Your task to perform on an android device: check google app version Image 0: 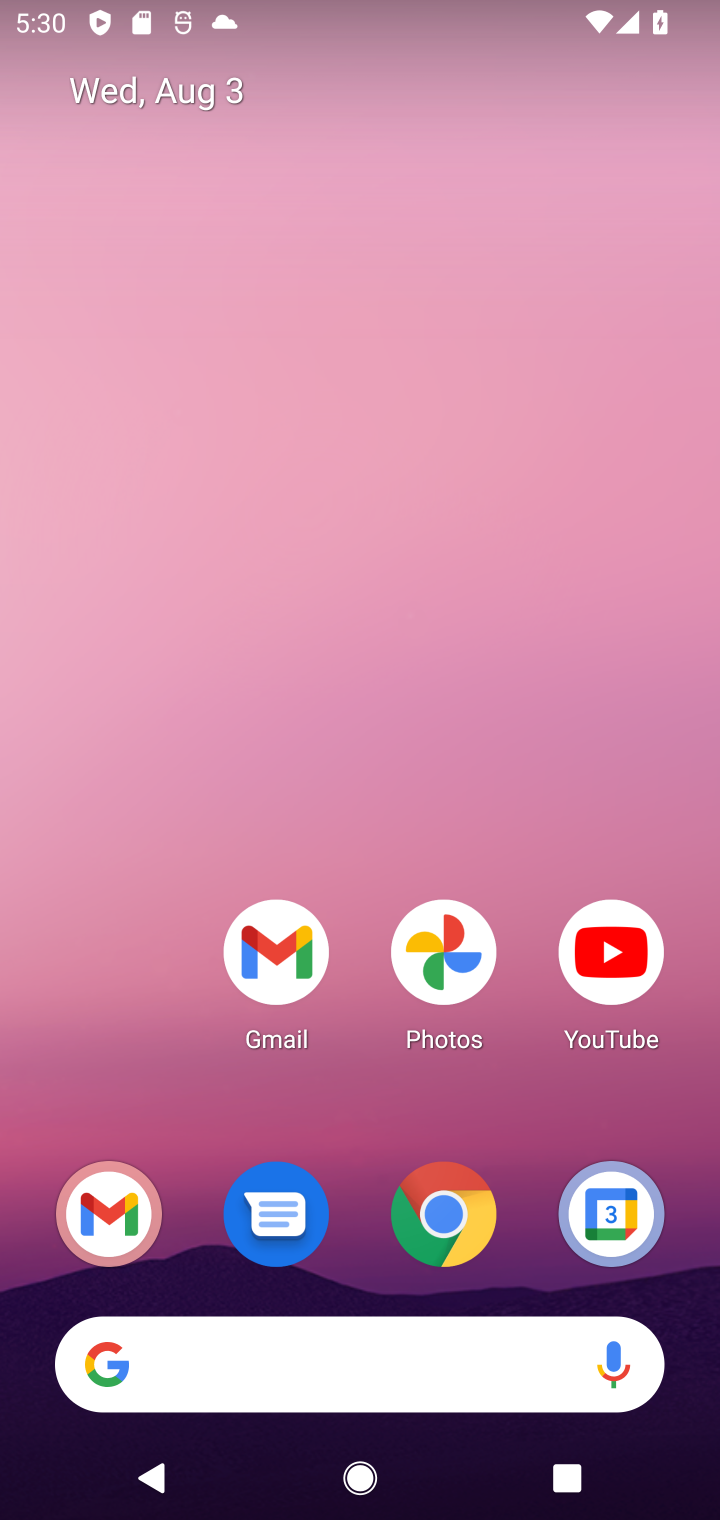
Step 0: drag from (114, 607) to (207, 8)
Your task to perform on an android device: check google app version Image 1: 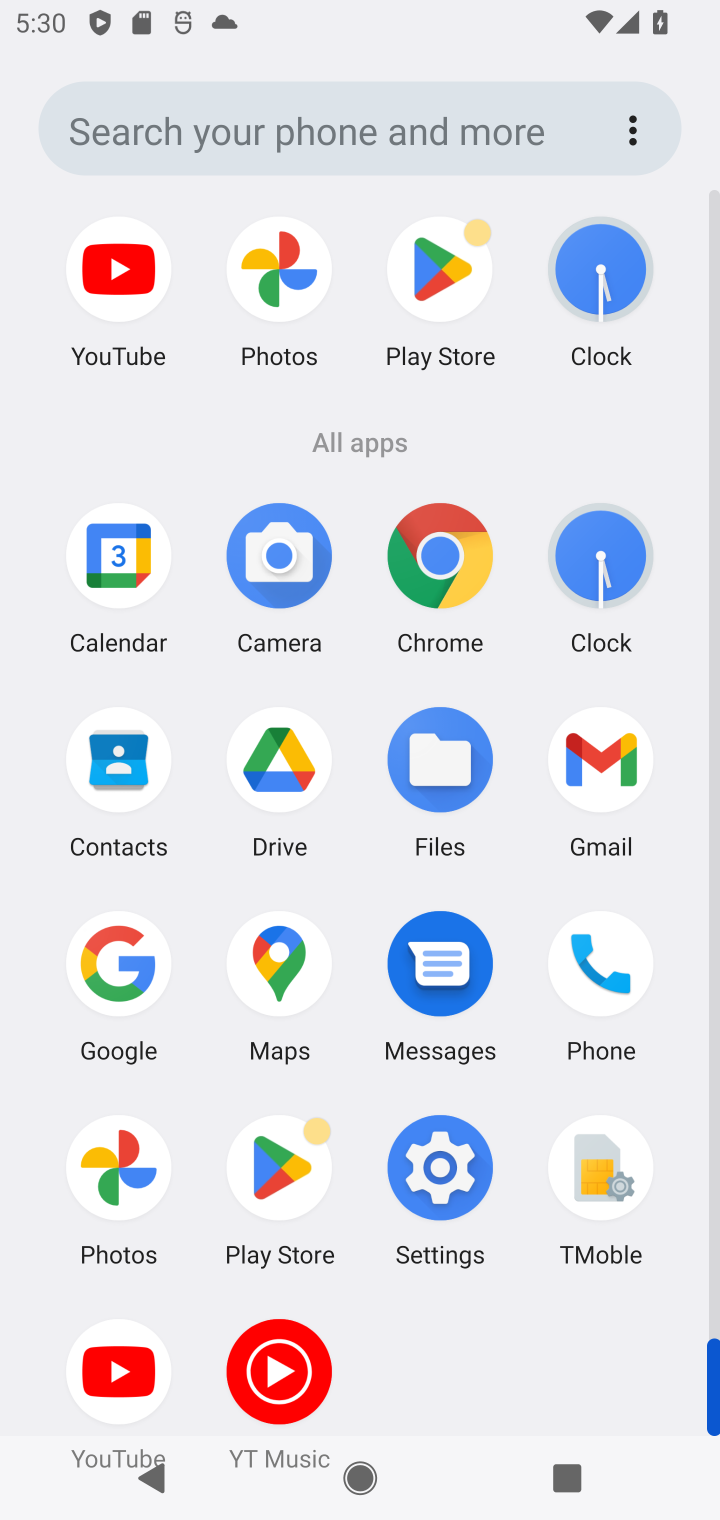
Step 1: click (112, 967)
Your task to perform on an android device: check google app version Image 2: 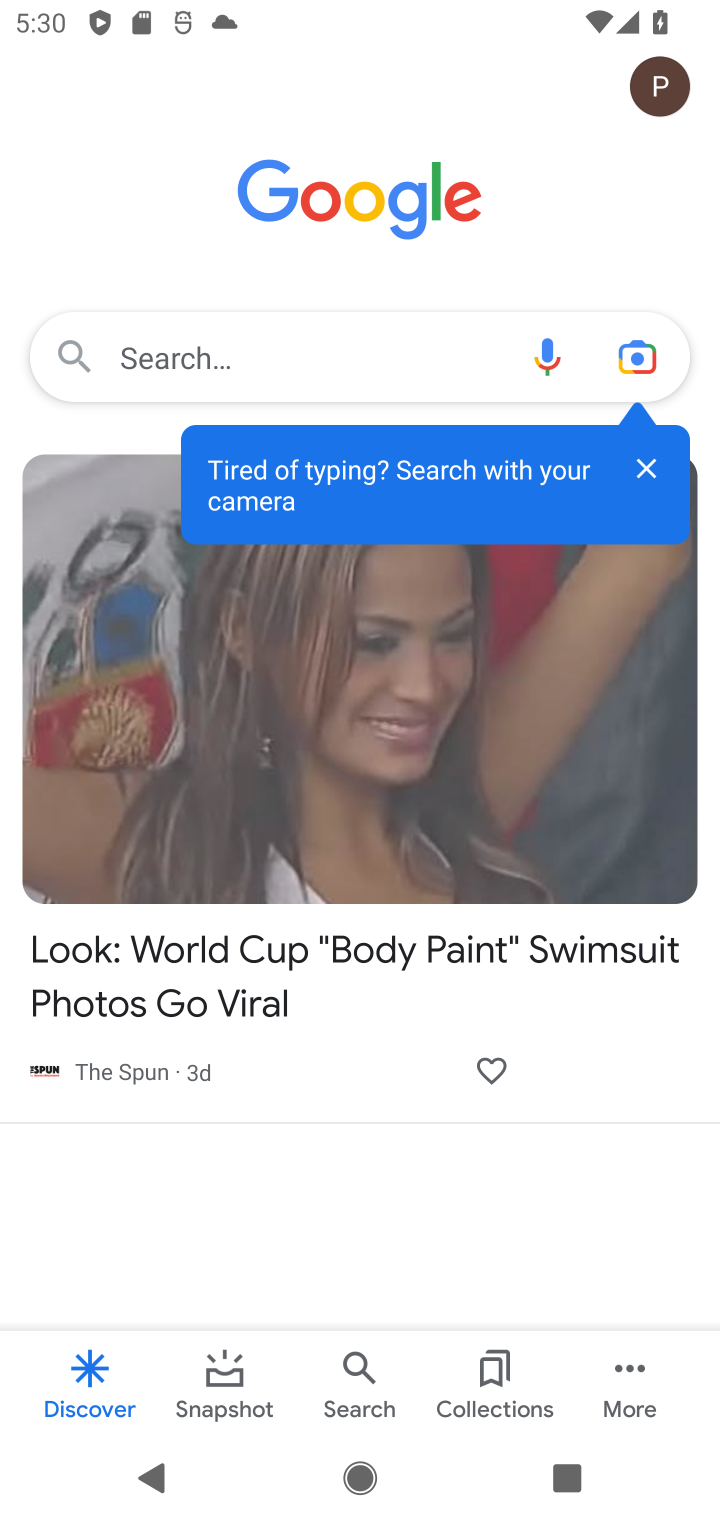
Step 2: click (618, 1372)
Your task to perform on an android device: check google app version Image 3: 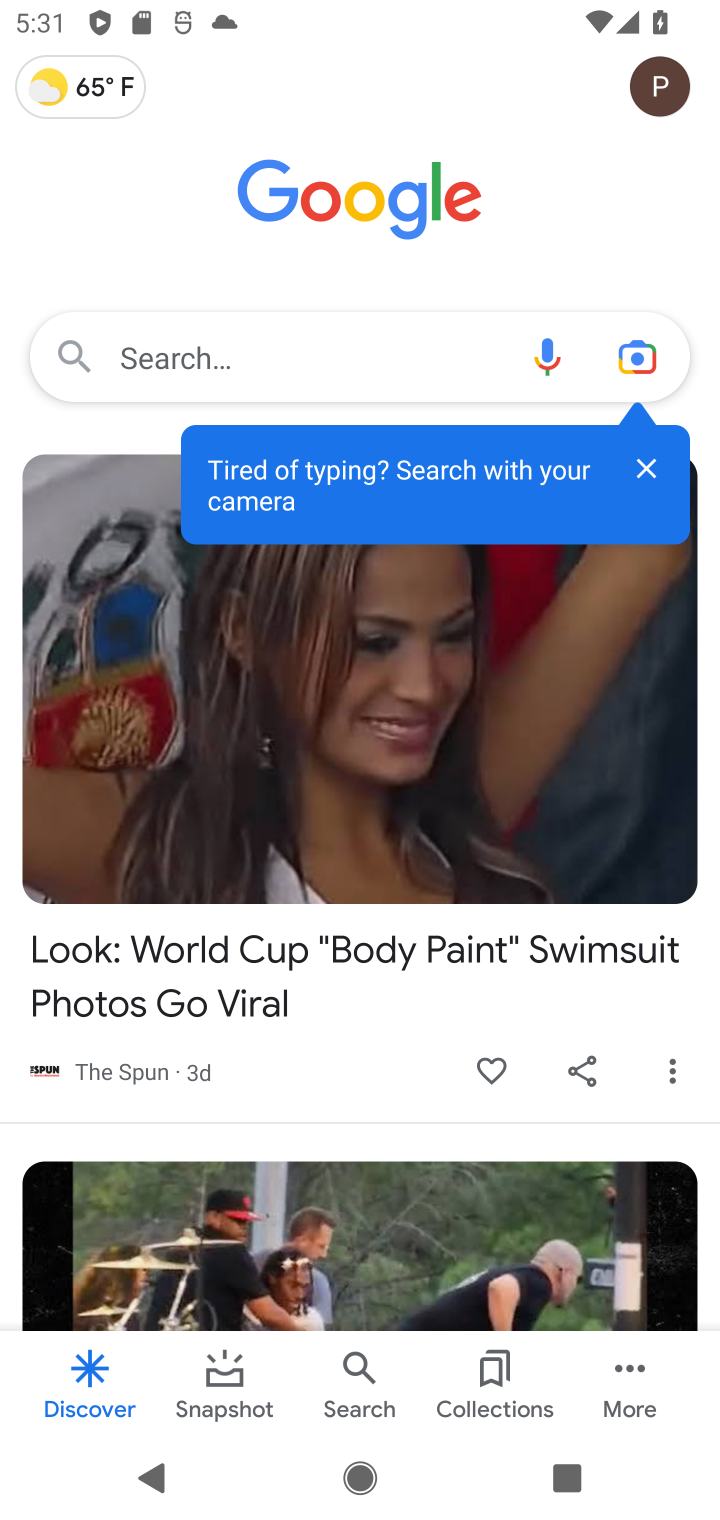
Step 3: click (632, 1385)
Your task to perform on an android device: check google app version Image 4: 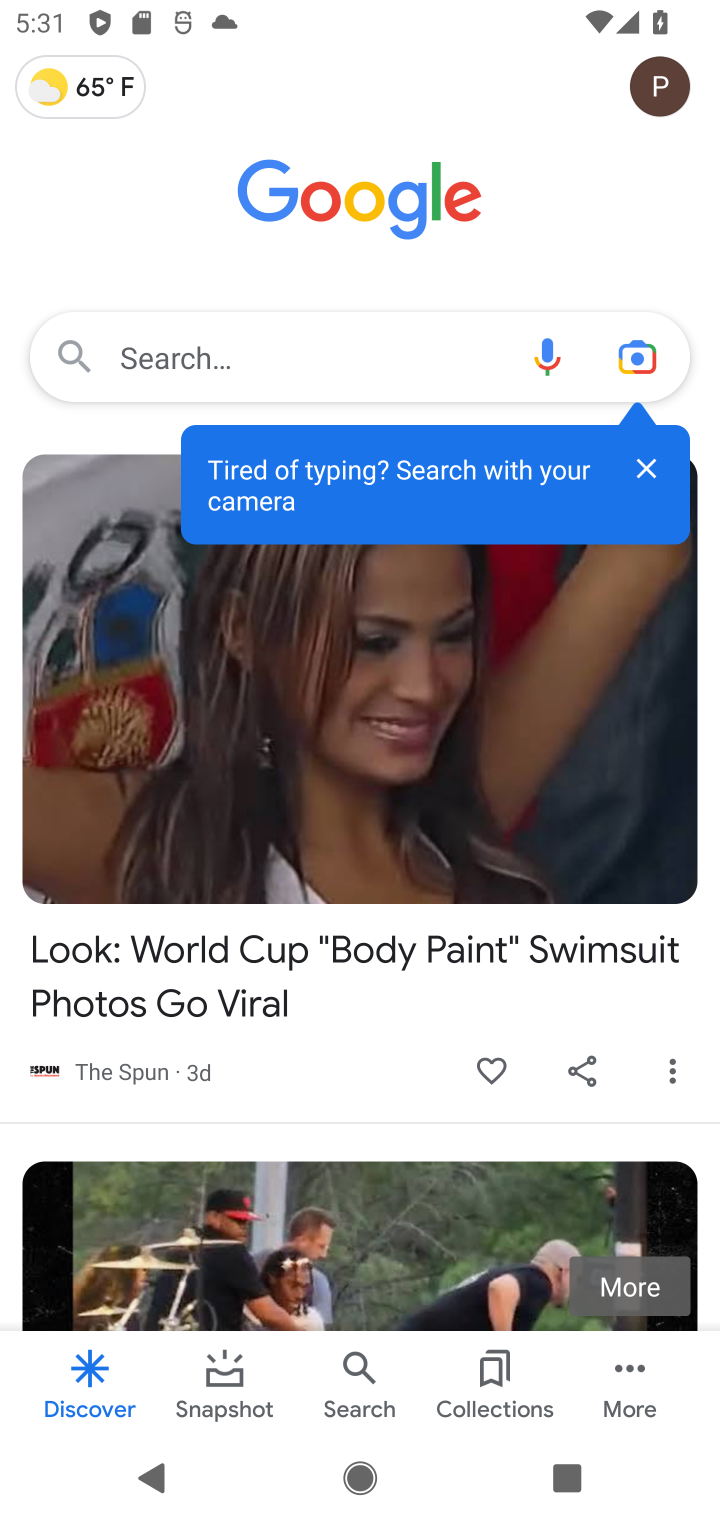
Step 4: click (632, 1381)
Your task to perform on an android device: check google app version Image 5: 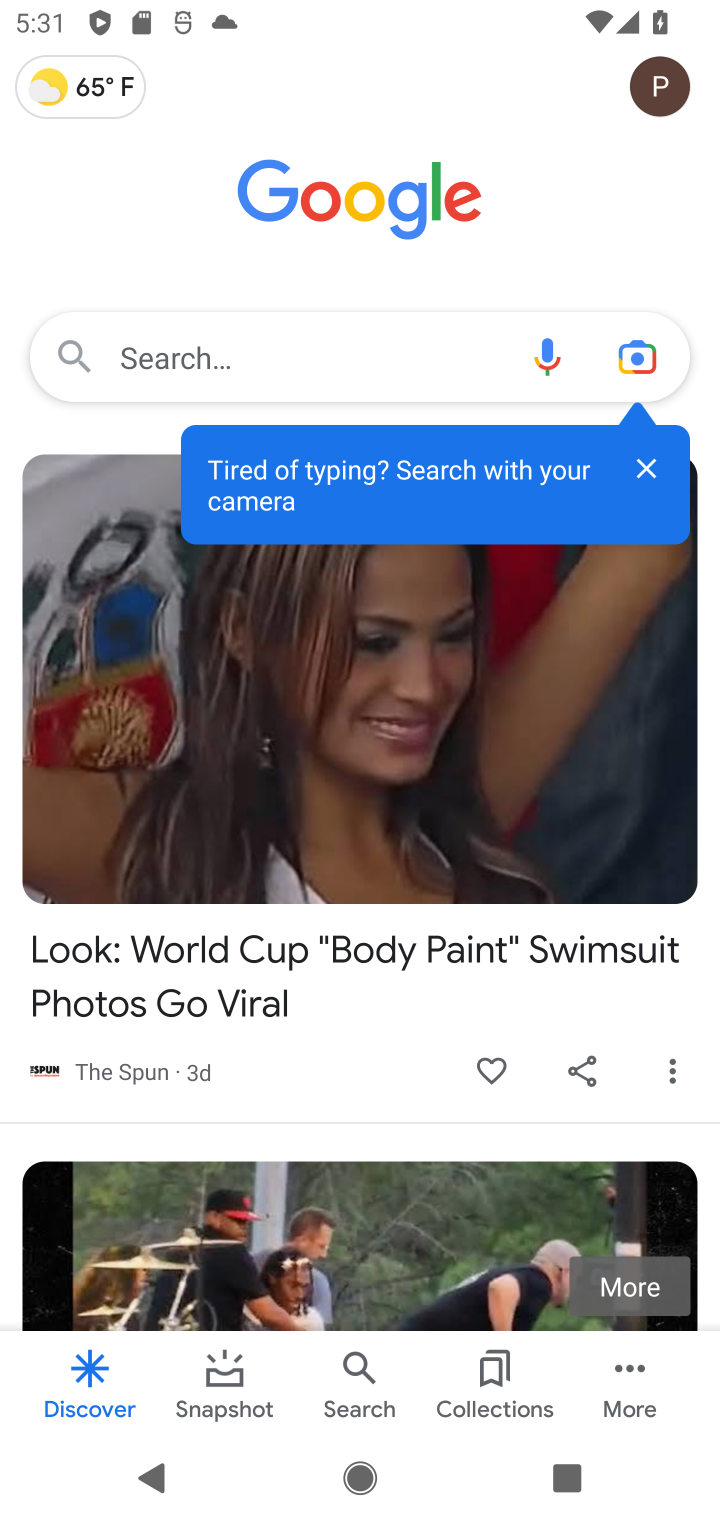
Step 5: click (630, 1395)
Your task to perform on an android device: check google app version Image 6: 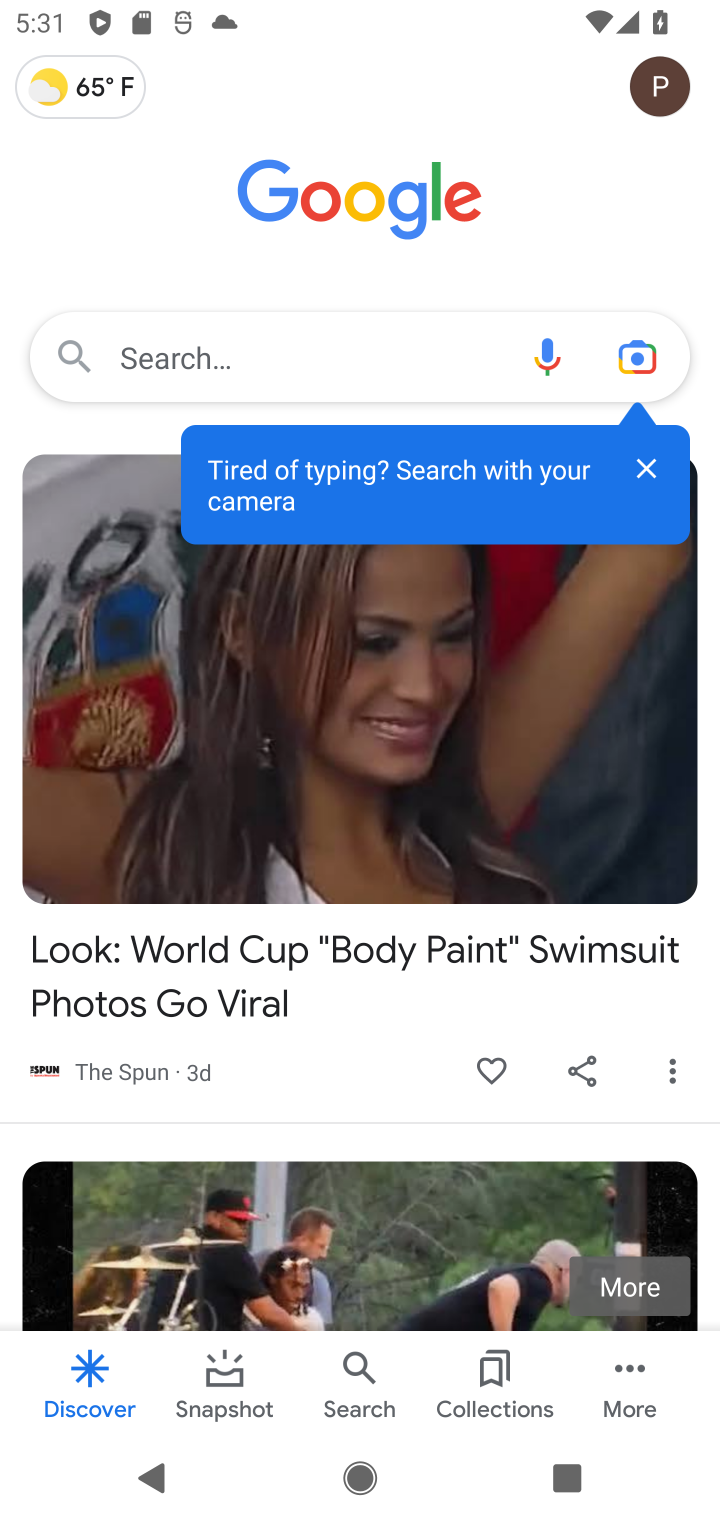
Step 6: click (635, 1391)
Your task to perform on an android device: check google app version Image 7: 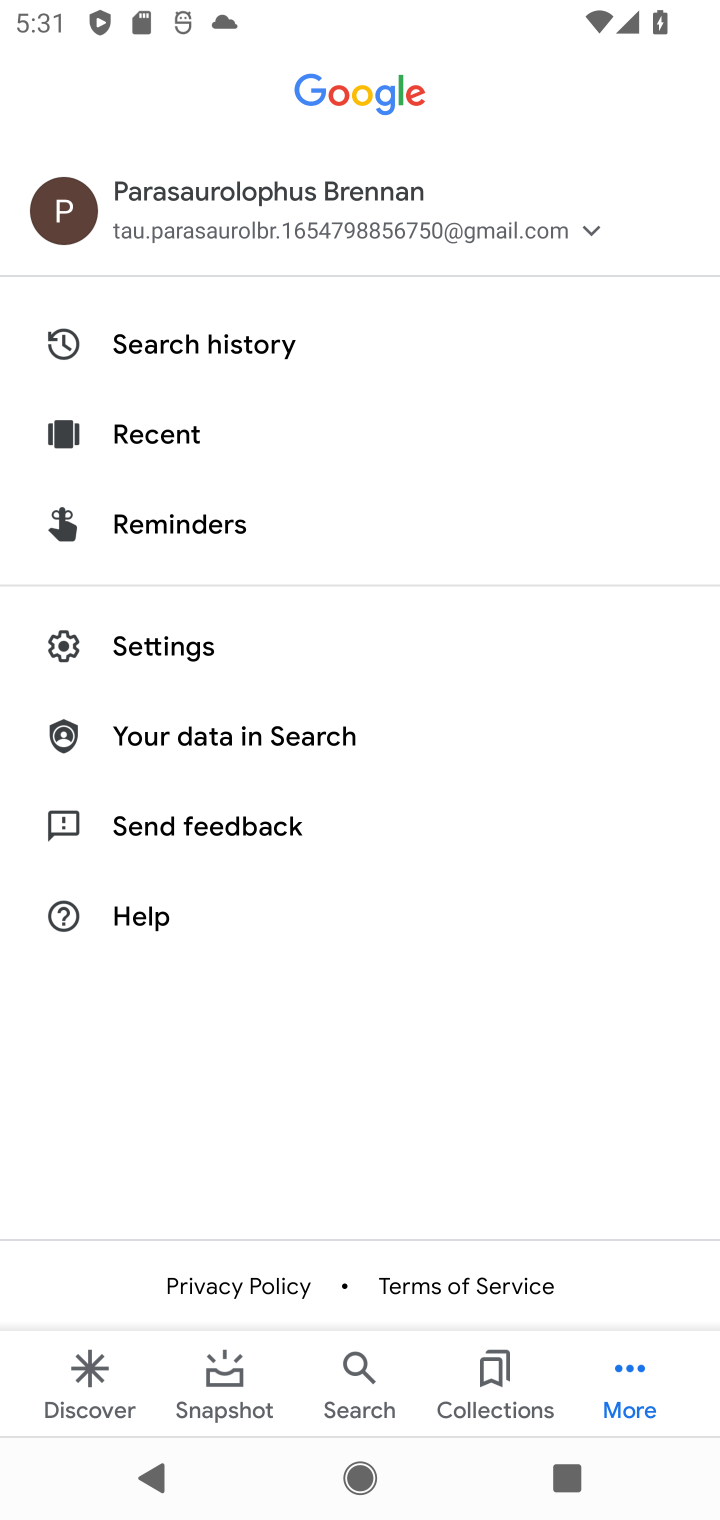
Step 7: click (155, 658)
Your task to perform on an android device: check google app version Image 8: 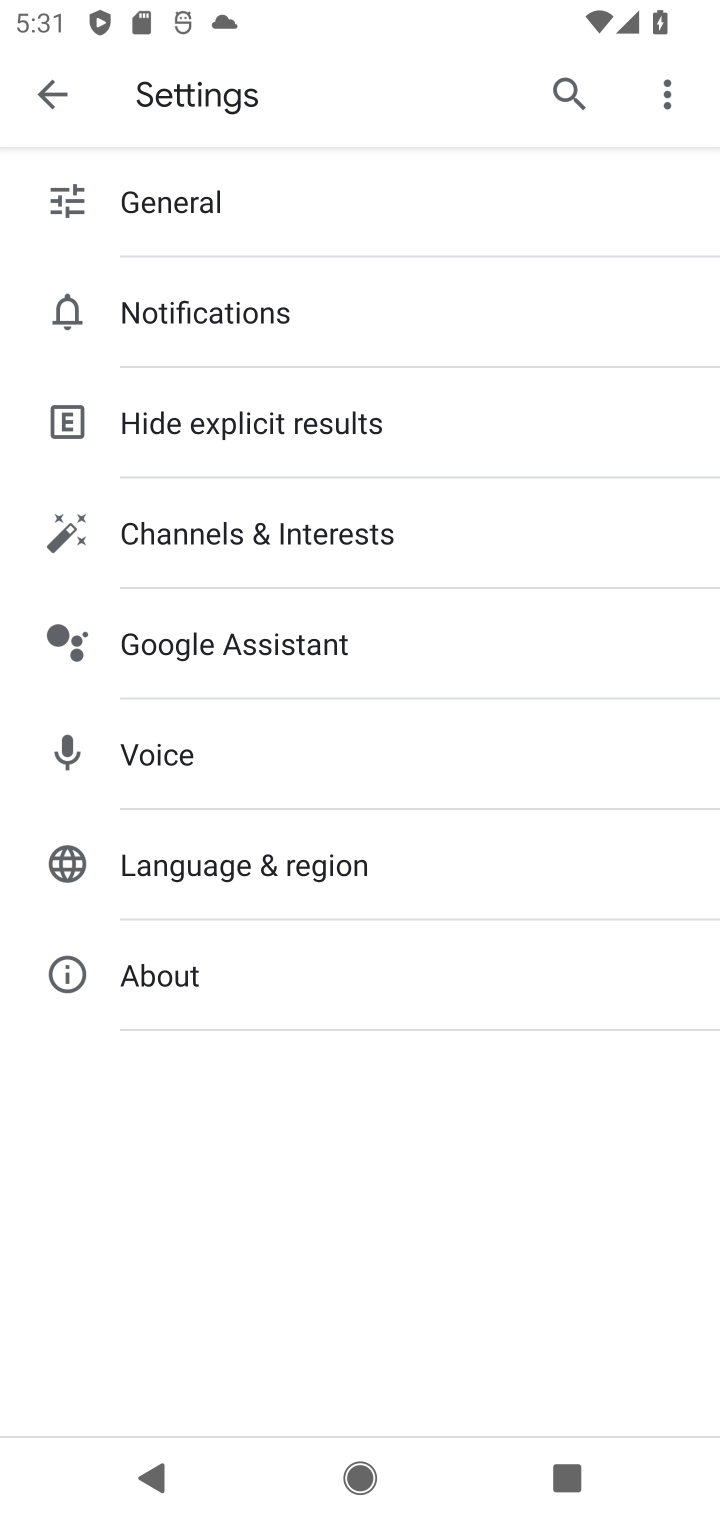
Step 8: click (180, 973)
Your task to perform on an android device: check google app version Image 9: 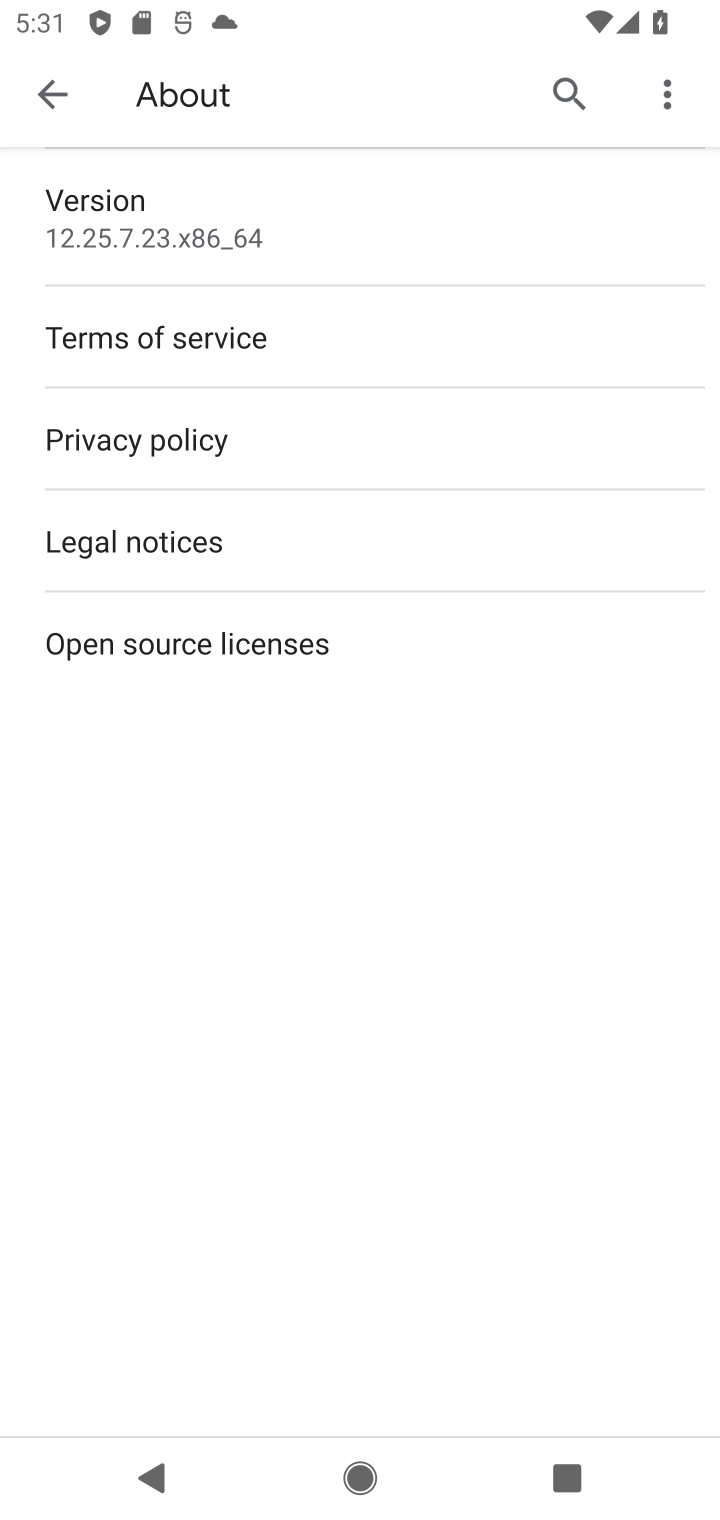
Step 9: task complete